Your task to perform on an android device: turn on the 24-hour format for clock Image 0: 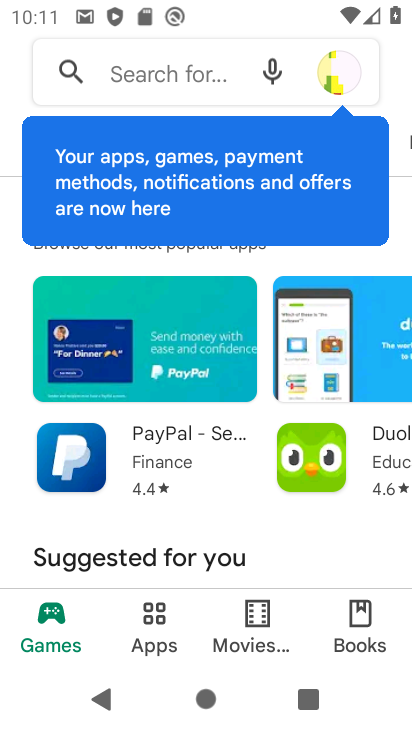
Step 0: press home button
Your task to perform on an android device: turn on the 24-hour format for clock Image 1: 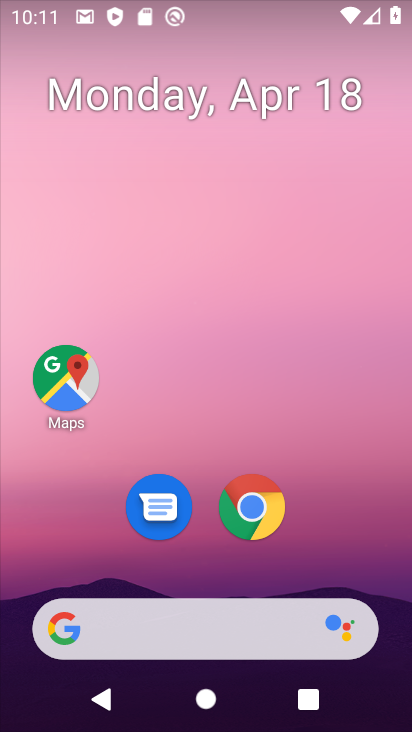
Step 1: drag from (307, 524) to (353, 120)
Your task to perform on an android device: turn on the 24-hour format for clock Image 2: 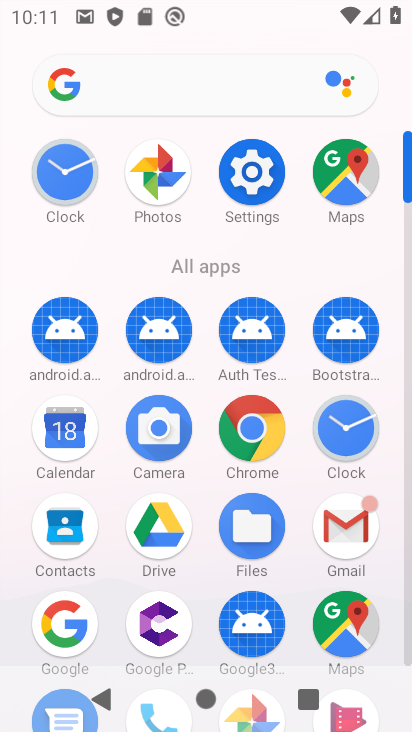
Step 2: click (340, 428)
Your task to perform on an android device: turn on the 24-hour format for clock Image 3: 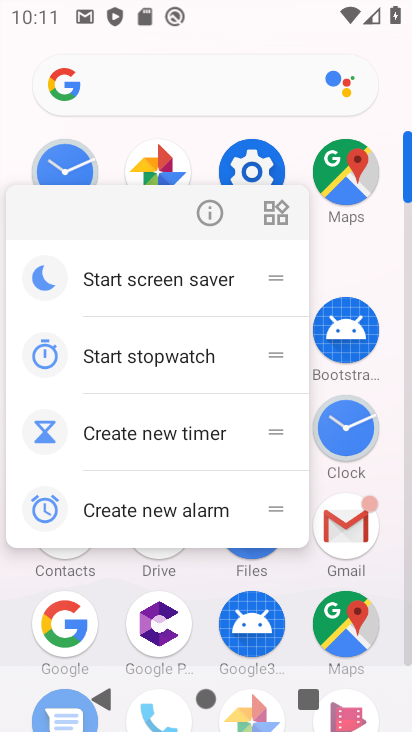
Step 3: click (340, 430)
Your task to perform on an android device: turn on the 24-hour format for clock Image 4: 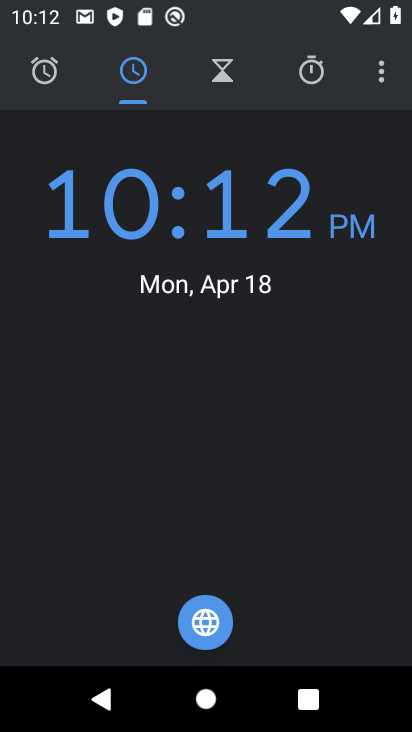
Step 4: click (383, 75)
Your task to perform on an android device: turn on the 24-hour format for clock Image 5: 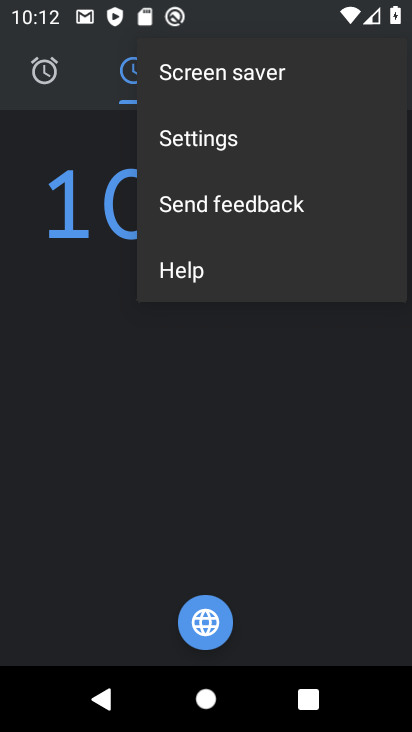
Step 5: click (309, 152)
Your task to perform on an android device: turn on the 24-hour format for clock Image 6: 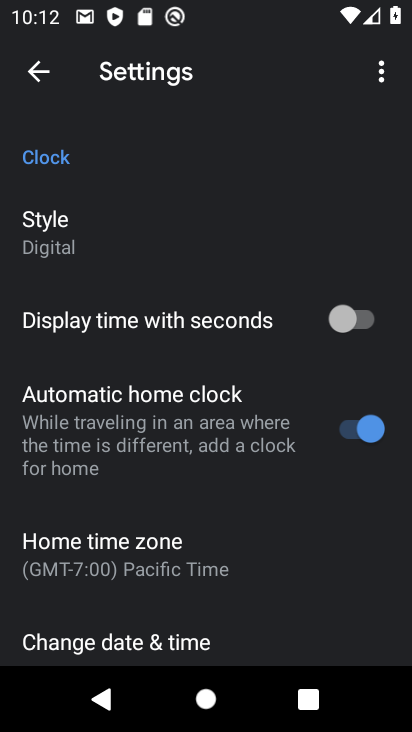
Step 6: drag from (265, 514) to (329, 200)
Your task to perform on an android device: turn on the 24-hour format for clock Image 7: 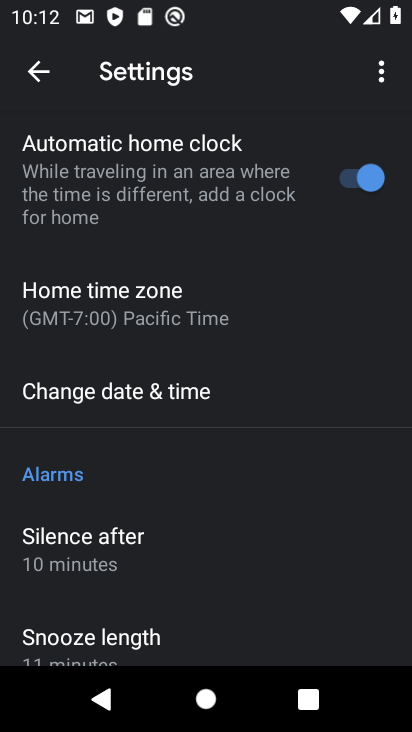
Step 7: click (210, 398)
Your task to perform on an android device: turn on the 24-hour format for clock Image 8: 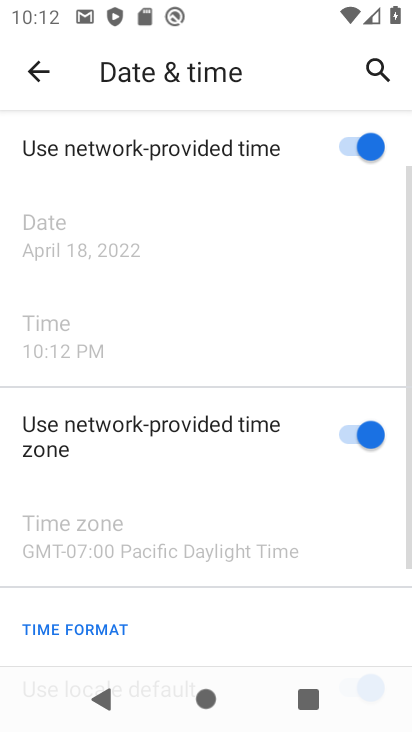
Step 8: drag from (229, 533) to (277, 174)
Your task to perform on an android device: turn on the 24-hour format for clock Image 9: 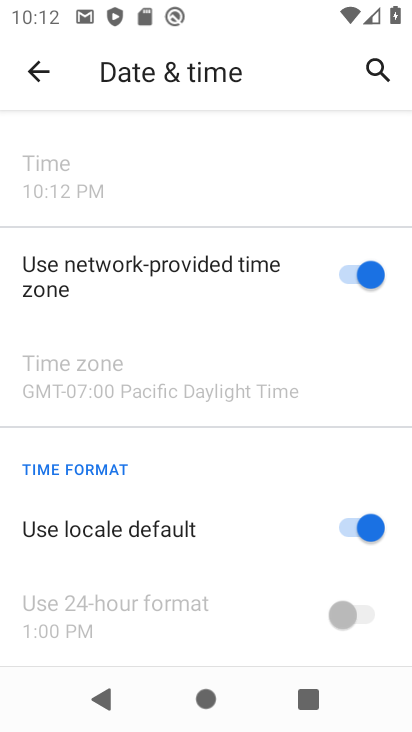
Step 9: click (347, 525)
Your task to perform on an android device: turn on the 24-hour format for clock Image 10: 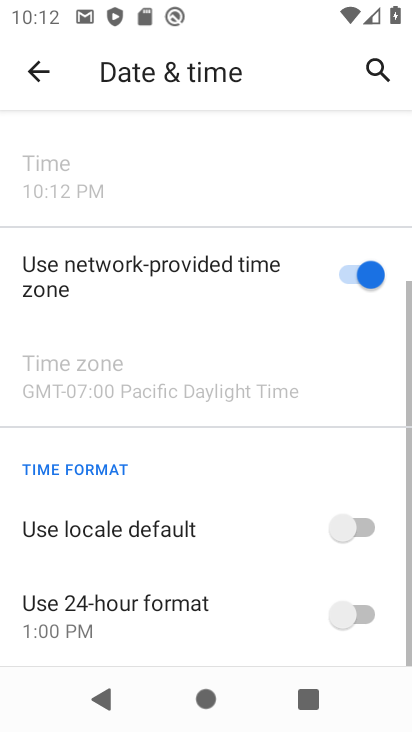
Step 10: click (360, 607)
Your task to perform on an android device: turn on the 24-hour format for clock Image 11: 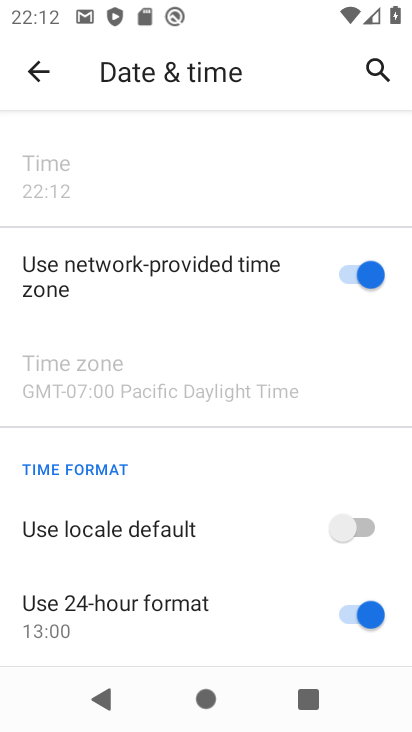
Step 11: task complete